Your task to perform on an android device: Search for vegetarian restaurants on Maps Image 0: 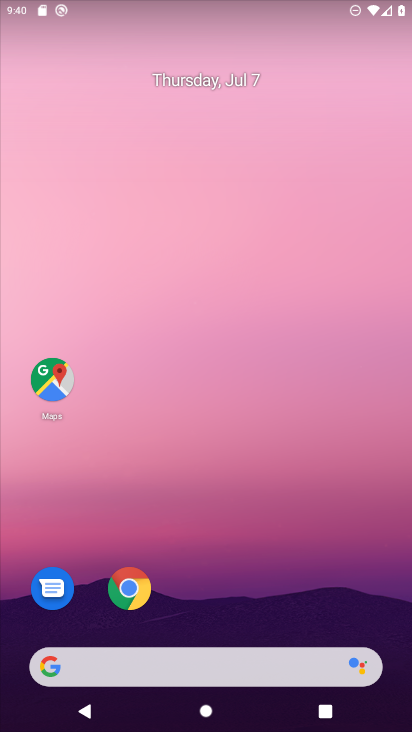
Step 0: click (56, 376)
Your task to perform on an android device: Search for vegetarian restaurants on Maps Image 1: 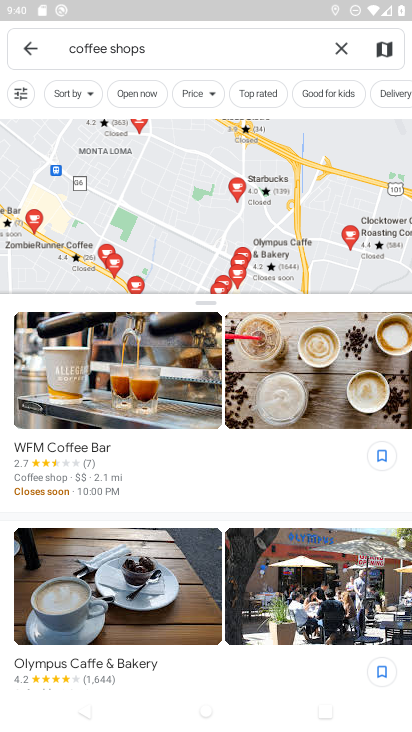
Step 1: click (338, 37)
Your task to perform on an android device: Search for vegetarian restaurants on Maps Image 2: 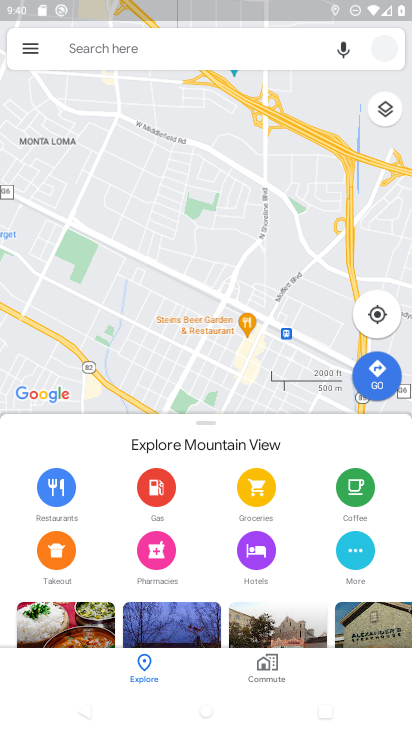
Step 2: click (258, 44)
Your task to perform on an android device: Search for vegetarian restaurants on Maps Image 3: 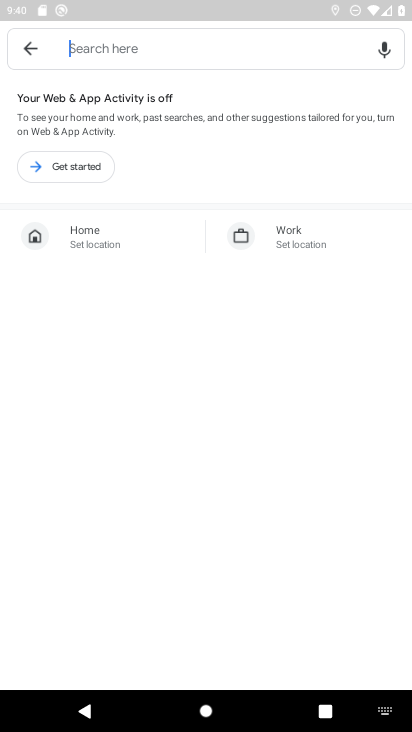
Step 3: type "vegetarian restaurant"
Your task to perform on an android device: Search for vegetarian restaurants on Maps Image 4: 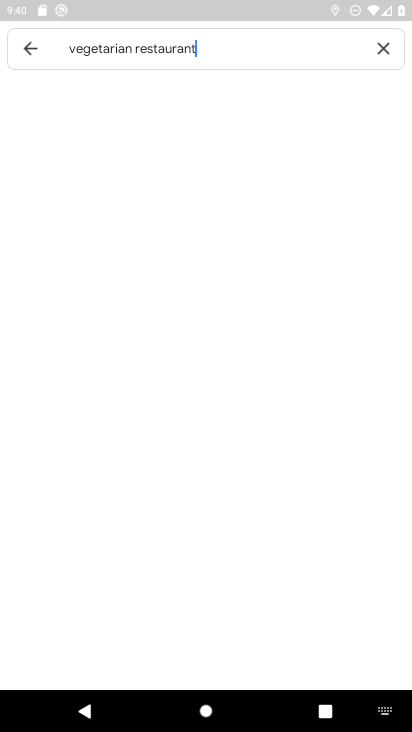
Step 4: type ""
Your task to perform on an android device: Search for vegetarian restaurants on Maps Image 5: 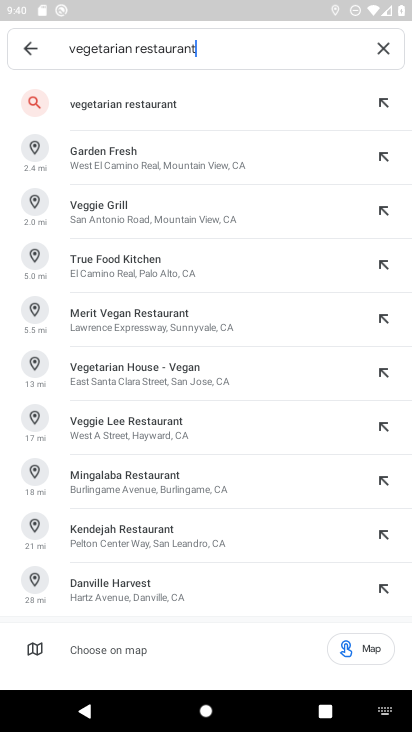
Step 5: click (208, 93)
Your task to perform on an android device: Search for vegetarian restaurants on Maps Image 6: 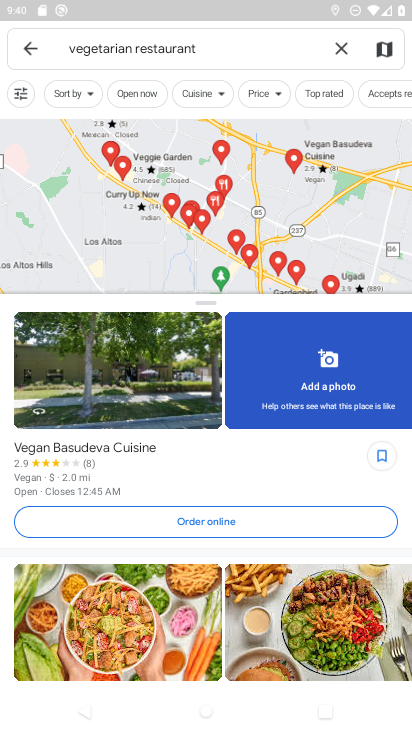
Step 6: task complete